Your task to perform on an android device: Open Maps and search for coffee Image 0: 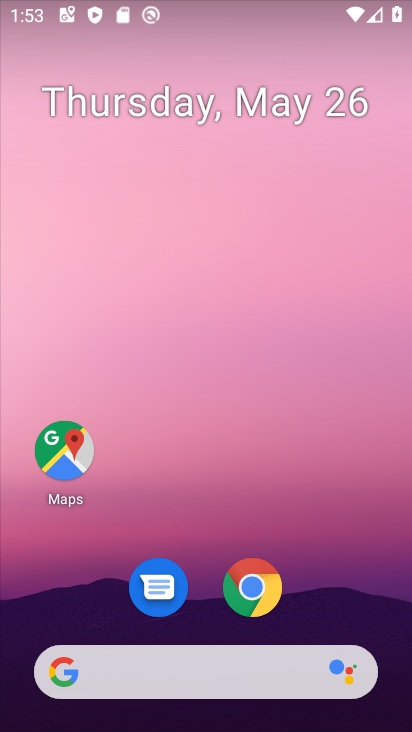
Step 0: click (64, 460)
Your task to perform on an android device: Open Maps and search for coffee Image 1: 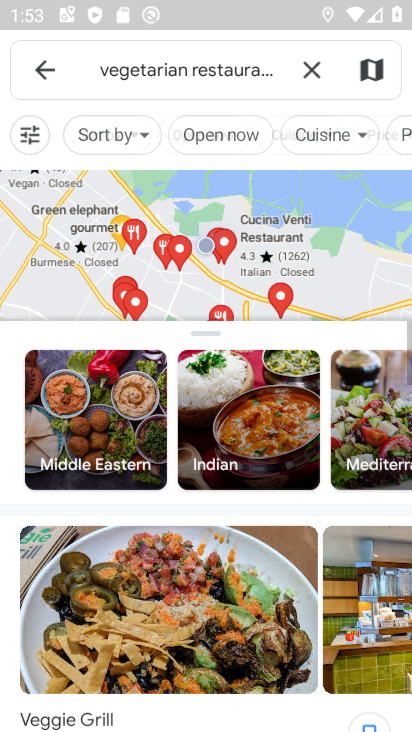
Step 1: click (222, 75)
Your task to perform on an android device: Open Maps and search for coffee Image 2: 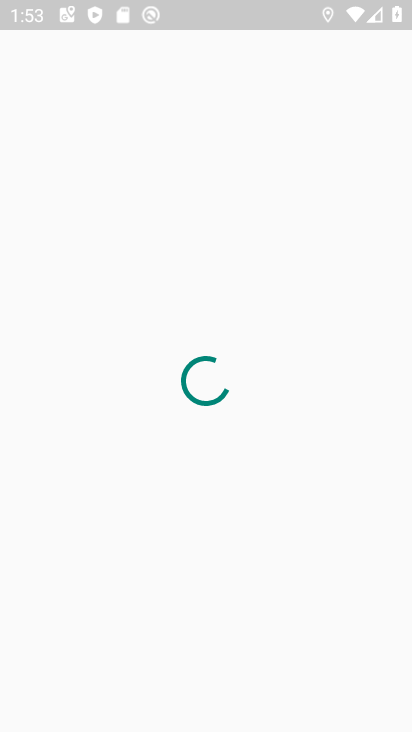
Step 2: click (362, 62)
Your task to perform on an android device: Open Maps and search for coffee Image 3: 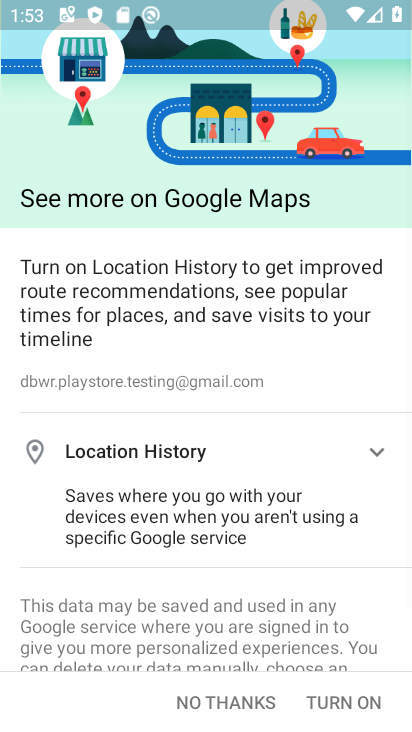
Step 3: click (253, 688)
Your task to perform on an android device: Open Maps and search for coffee Image 4: 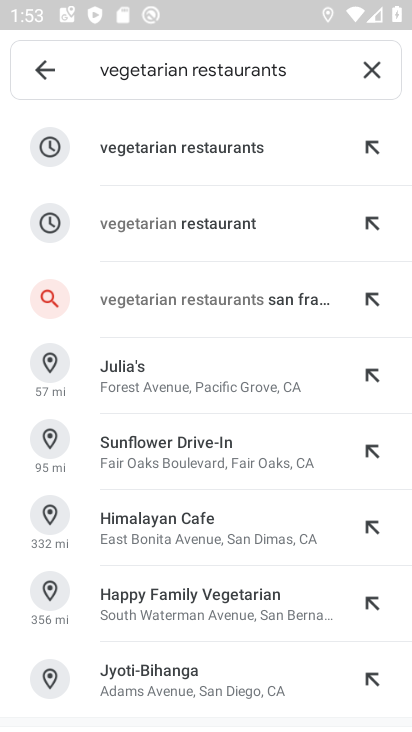
Step 4: click (358, 69)
Your task to perform on an android device: Open Maps and search for coffee Image 5: 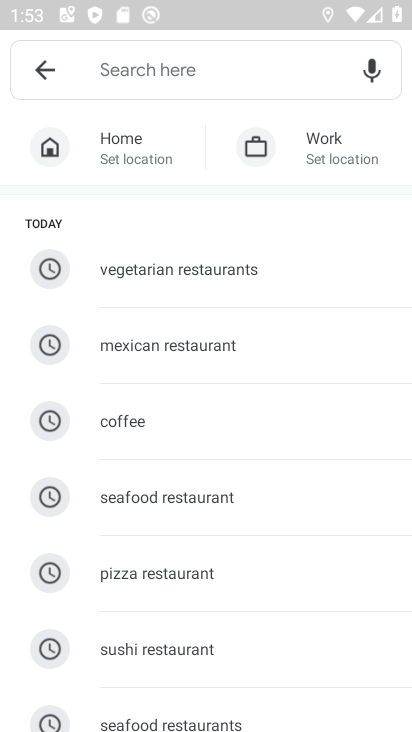
Step 5: click (120, 420)
Your task to perform on an android device: Open Maps and search for coffee Image 6: 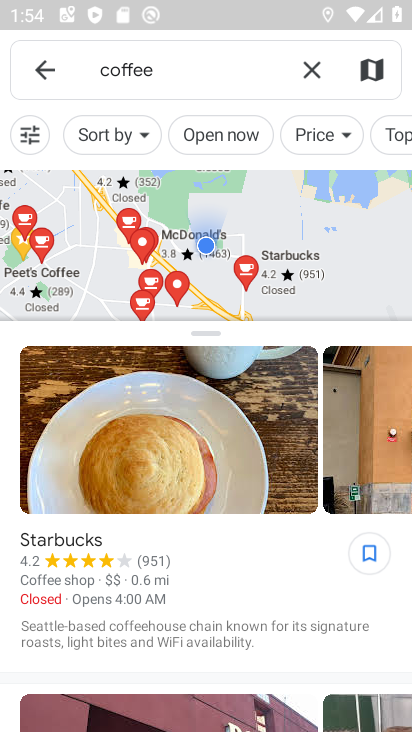
Step 6: task complete